Your task to perform on an android device: Show me popular videos on Youtube Image 0: 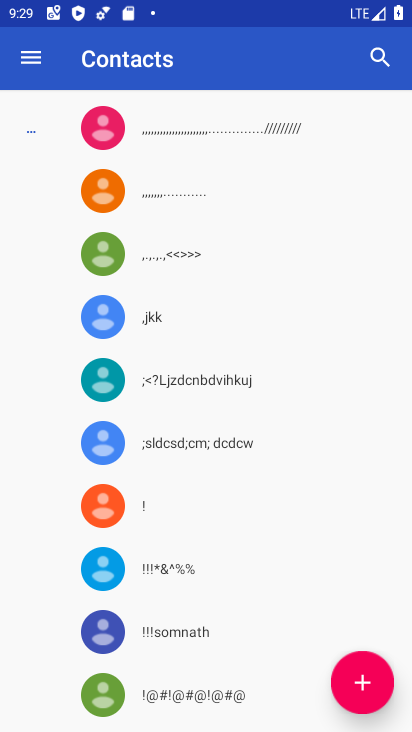
Step 0: press home button
Your task to perform on an android device: Show me popular videos on Youtube Image 1: 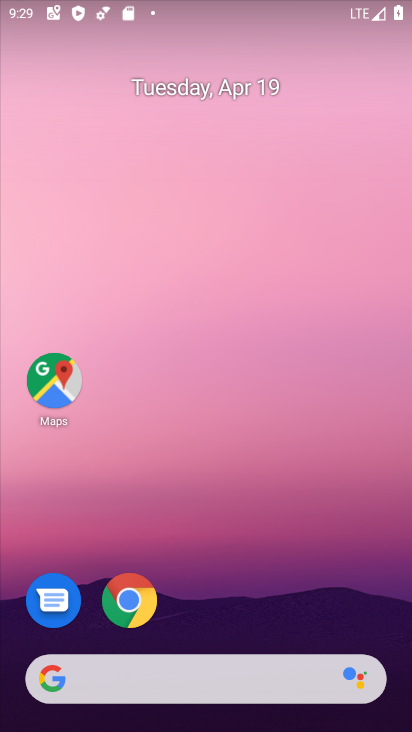
Step 1: drag from (391, 609) to (312, 47)
Your task to perform on an android device: Show me popular videos on Youtube Image 2: 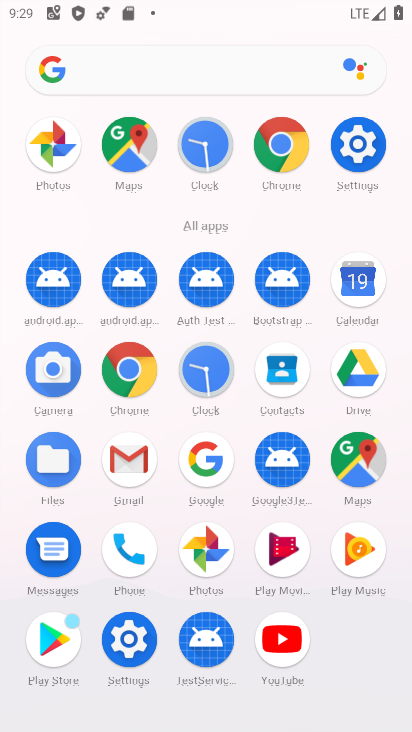
Step 2: click (286, 652)
Your task to perform on an android device: Show me popular videos on Youtube Image 3: 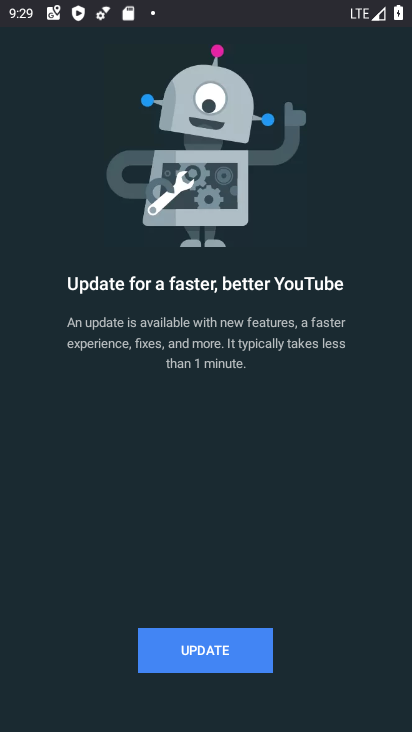
Step 3: press home button
Your task to perform on an android device: Show me popular videos on Youtube Image 4: 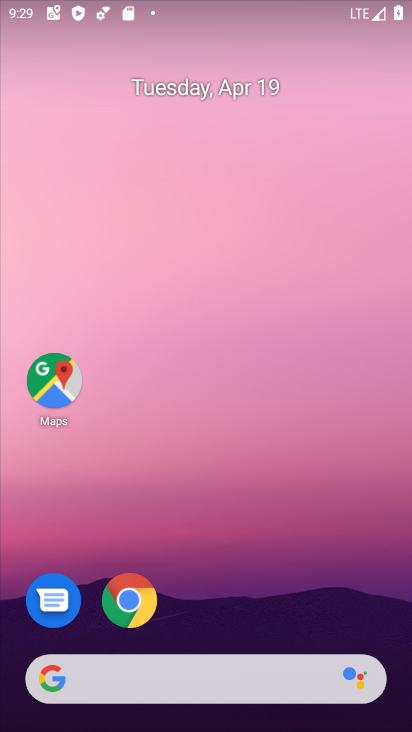
Step 4: drag from (308, 623) to (285, 72)
Your task to perform on an android device: Show me popular videos on Youtube Image 5: 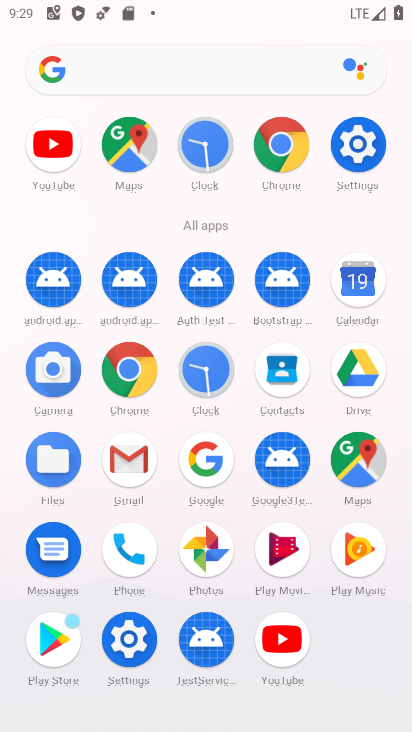
Step 5: click (287, 644)
Your task to perform on an android device: Show me popular videos on Youtube Image 6: 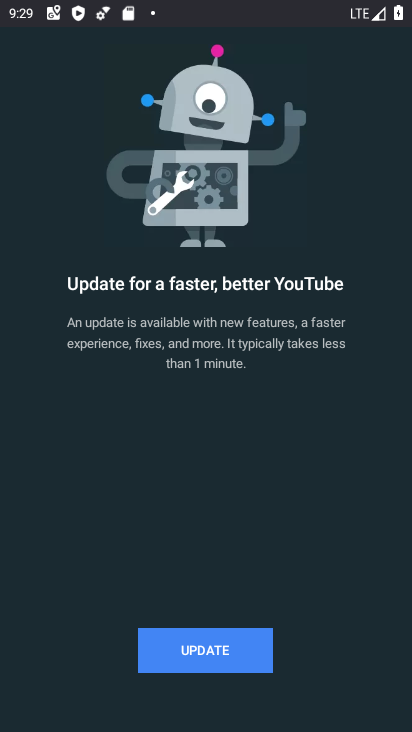
Step 6: click (164, 646)
Your task to perform on an android device: Show me popular videos on Youtube Image 7: 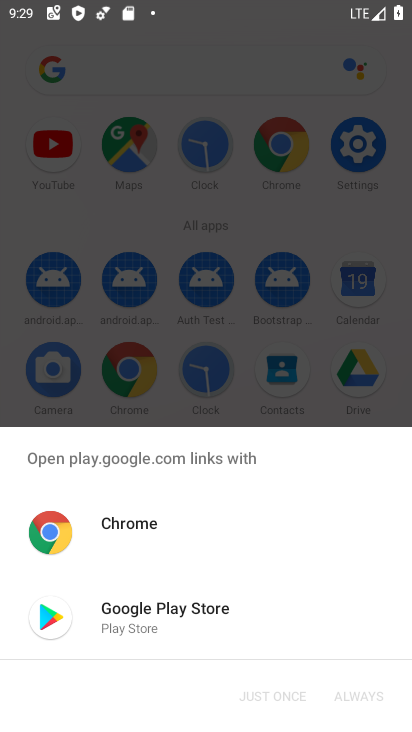
Step 7: click (282, 620)
Your task to perform on an android device: Show me popular videos on Youtube Image 8: 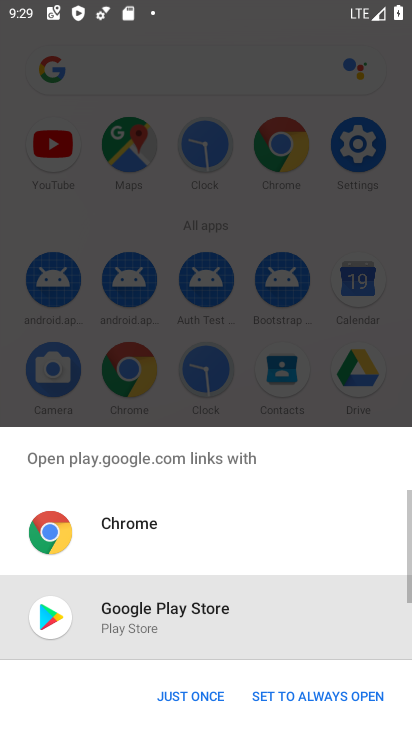
Step 8: click (210, 693)
Your task to perform on an android device: Show me popular videos on Youtube Image 9: 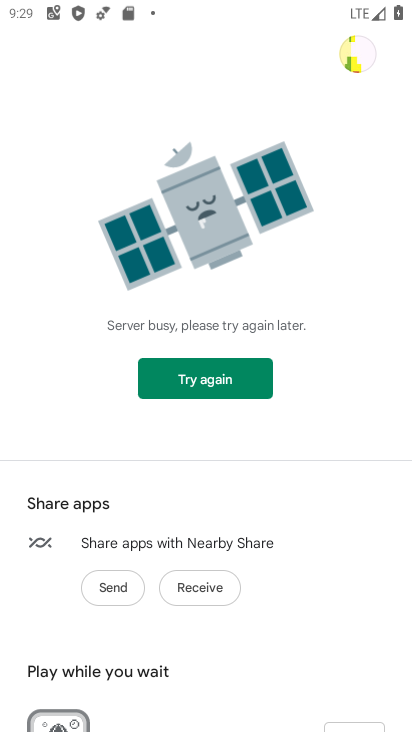
Step 9: task complete